Your task to perform on an android device: toggle priority inbox in the gmail app Image 0: 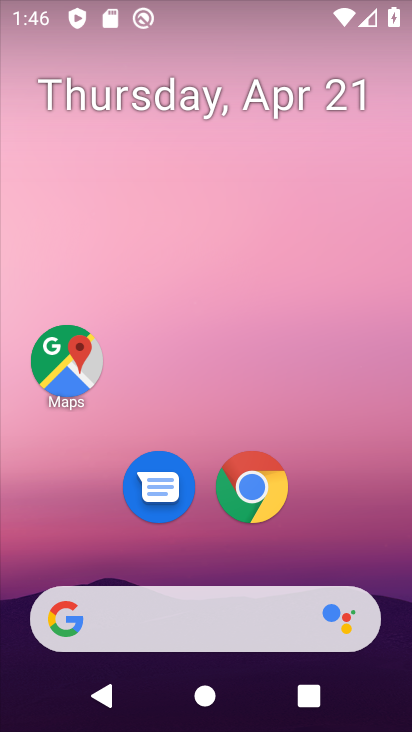
Step 0: click (267, 118)
Your task to perform on an android device: toggle priority inbox in the gmail app Image 1: 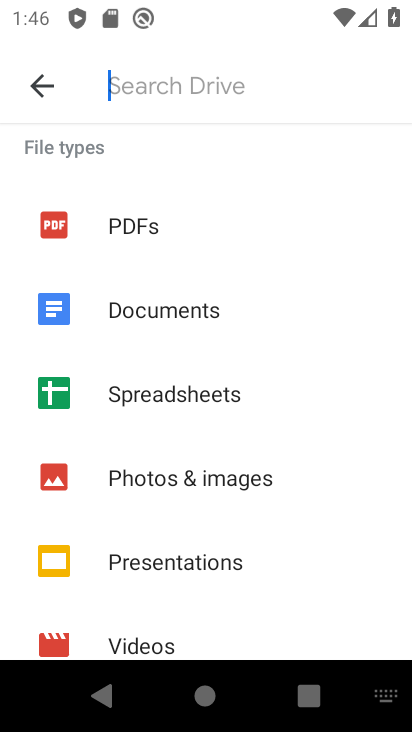
Step 1: drag from (214, 579) to (274, 226)
Your task to perform on an android device: toggle priority inbox in the gmail app Image 2: 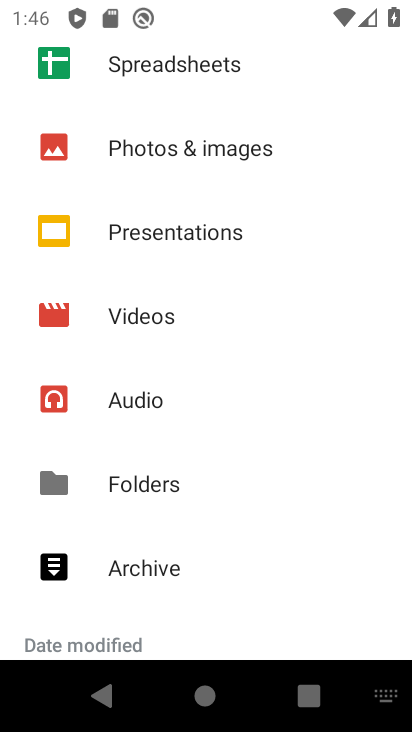
Step 2: drag from (267, 409) to (267, 198)
Your task to perform on an android device: toggle priority inbox in the gmail app Image 3: 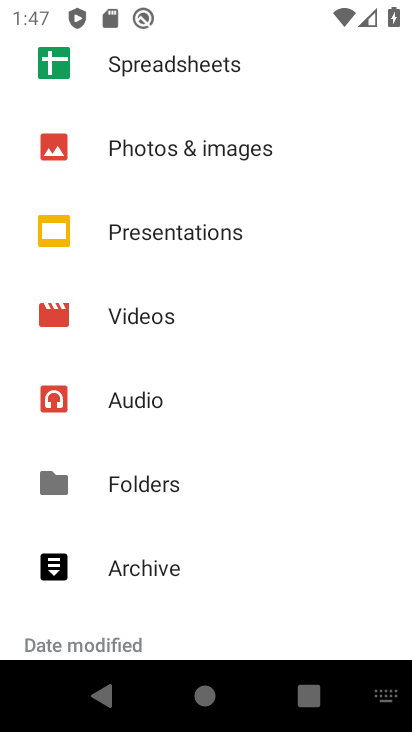
Step 3: drag from (188, 591) to (214, 256)
Your task to perform on an android device: toggle priority inbox in the gmail app Image 4: 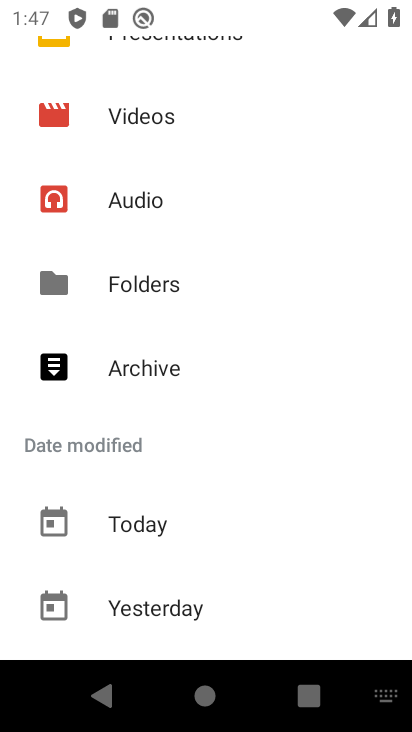
Step 4: drag from (199, 543) to (299, 124)
Your task to perform on an android device: toggle priority inbox in the gmail app Image 5: 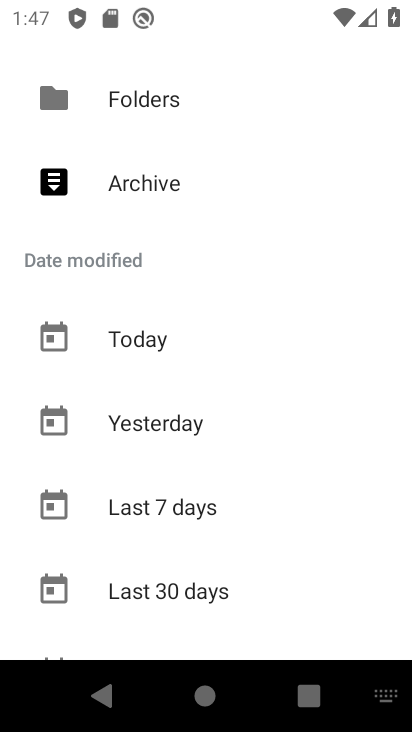
Step 5: drag from (208, 526) to (332, 23)
Your task to perform on an android device: toggle priority inbox in the gmail app Image 6: 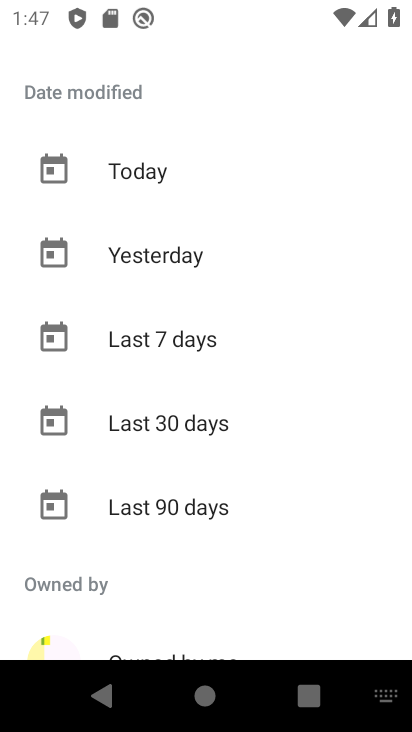
Step 6: drag from (216, 129) to (211, 652)
Your task to perform on an android device: toggle priority inbox in the gmail app Image 7: 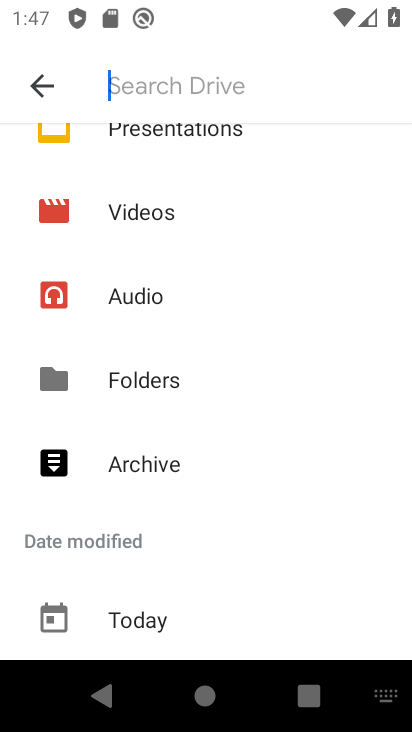
Step 7: press home button
Your task to perform on an android device: toggle priority inbox in the gmail app Image 8: 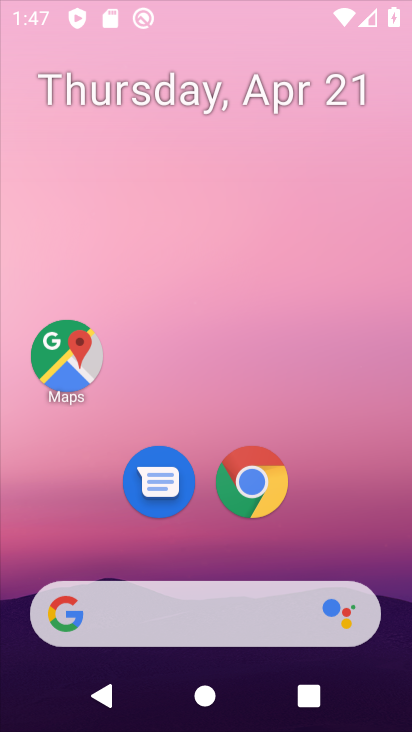
Step 8: drag from (233, 535) to (204, 3)
Your task to perform on an android device: toggle priority inbox in the gmail app Image 9: 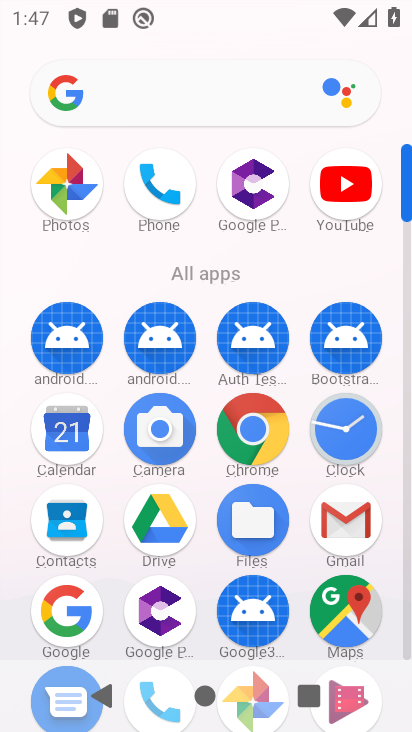
Step 9: click (348, 493)
Your task to perform on an android device: toggle priority inbox in the gmail app Image 10: 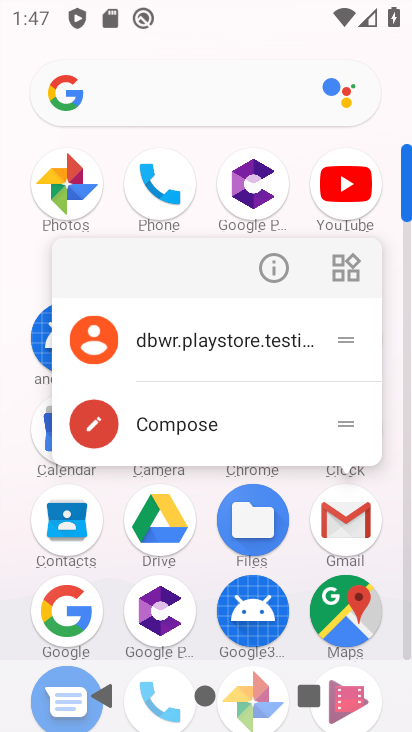
Step 10: click (265, 266)
Your task to perform on an android device: toggle priority inbox in the gmail app Image 11: 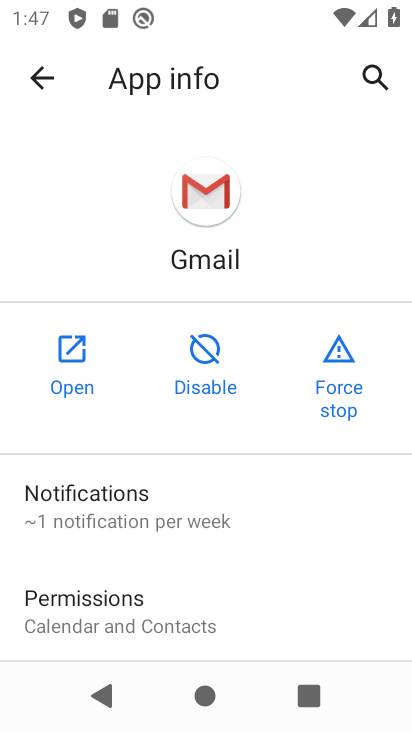
Step 11: click (71, 344)
Your task to perform on an android device: toggle priority inbox in the gmail app Image 12: 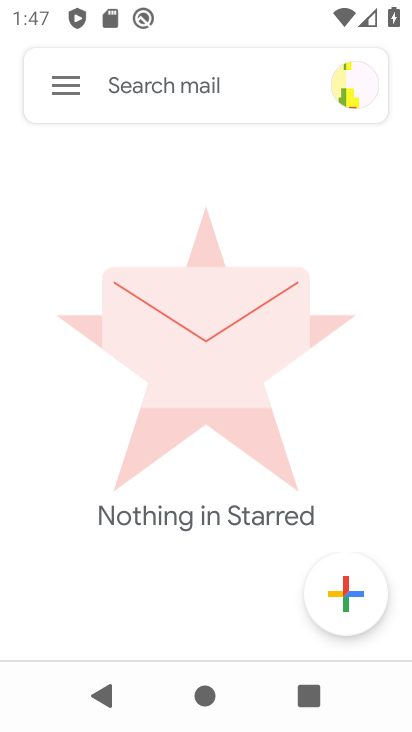
Step 12: click (50, 80)
Your task to perform on an android device: toggle priority inbox in the gmail app Image 13: 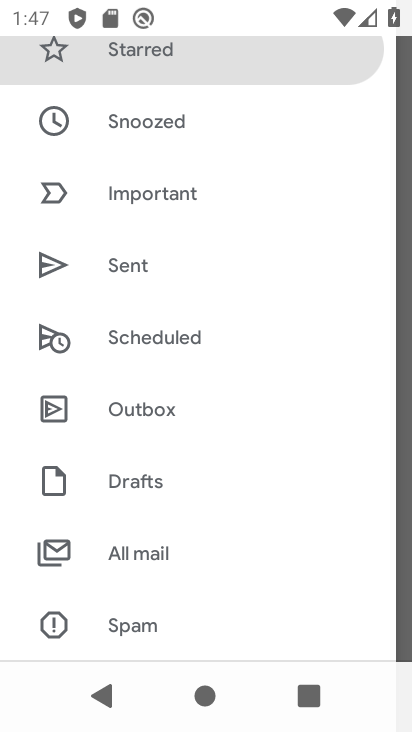
Step 13: drag from (158, 297) to (249, 617)
Your task to perform on an android device: toggle priority inbox in the gmail app Image 14: 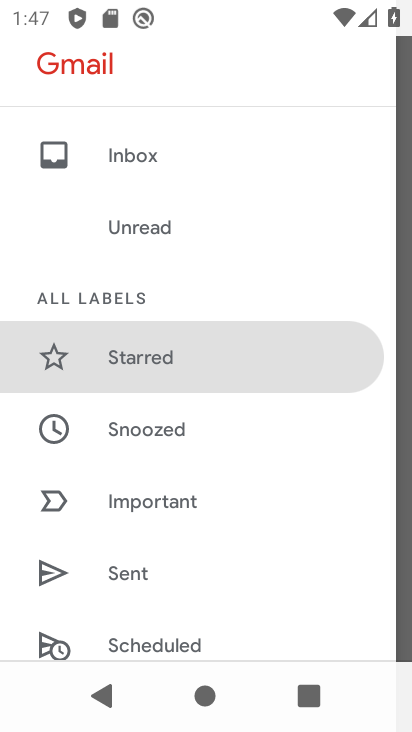
Step 14: drag from (205, 527) to (290, 69)
Your task to perform on an android device: toggle priority inbox in the gmail app Image 15: 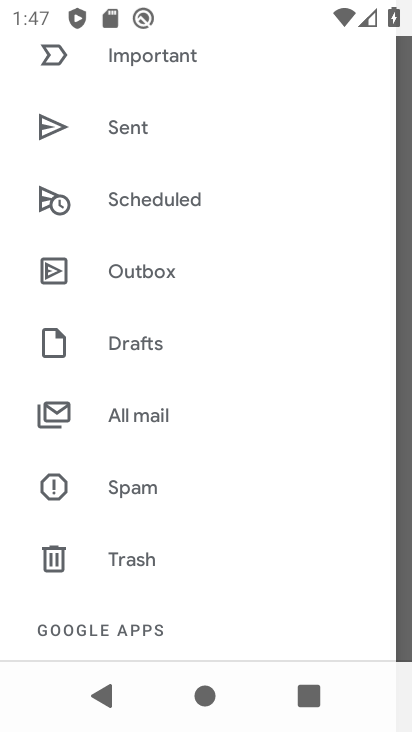
Step 15: drag from (206, 566) to (244, 108)
Your task to perform on an android device: toggle priority inbox in the gmail app Image 16: 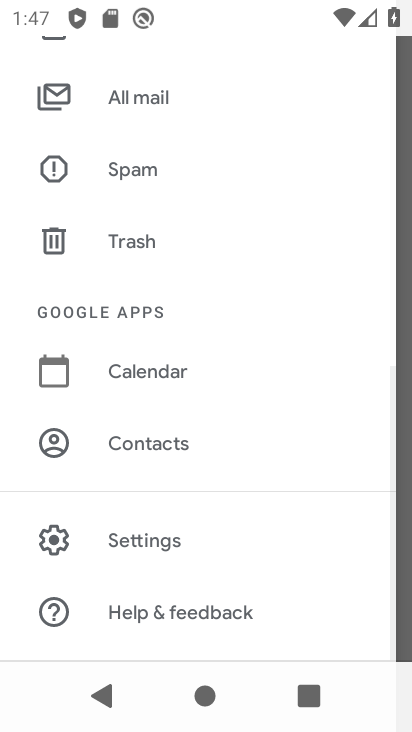
Step 16: click (138, 546)
Your task to perform on an android device: toggle priority inbox in the gmail app Image 17: 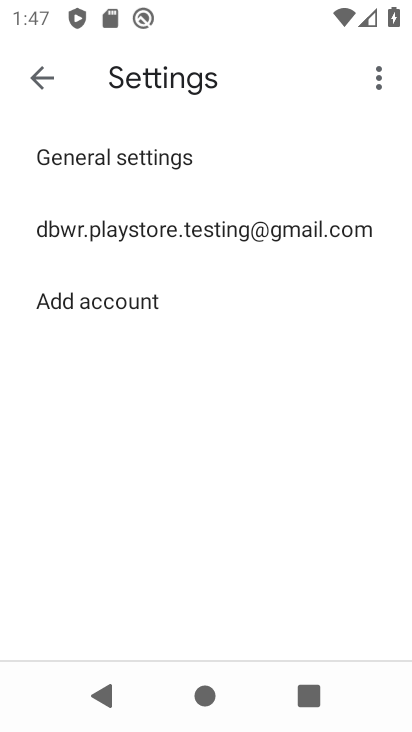
Step 17: click (258, 239)
Your task to perform on an android device: toggle priority inbox in the gmail app Image 18: 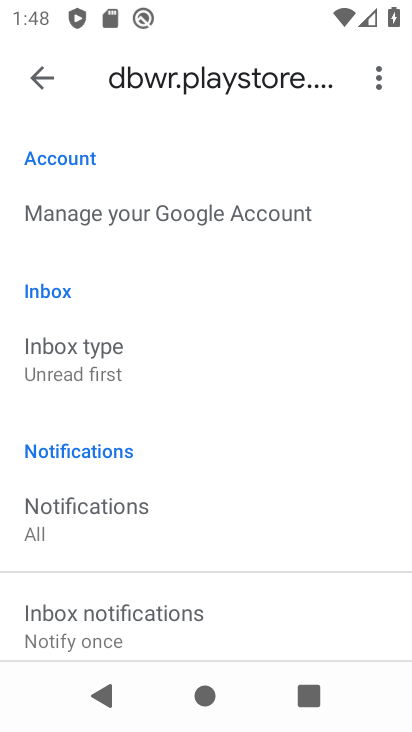
Step 18: click (139, 331)
Your task to perform on an android device: toggle priority inbox in the gmail app Image 19: 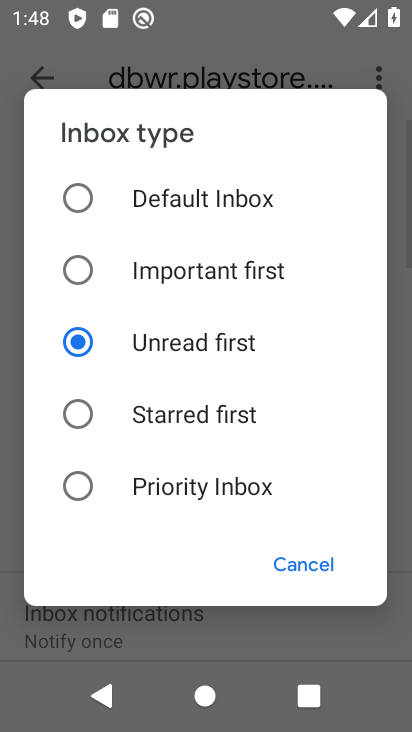
Step 19: click (220, 483)
Your task to perform on an android device: toggle priority inbox in the gmail app Image 20: 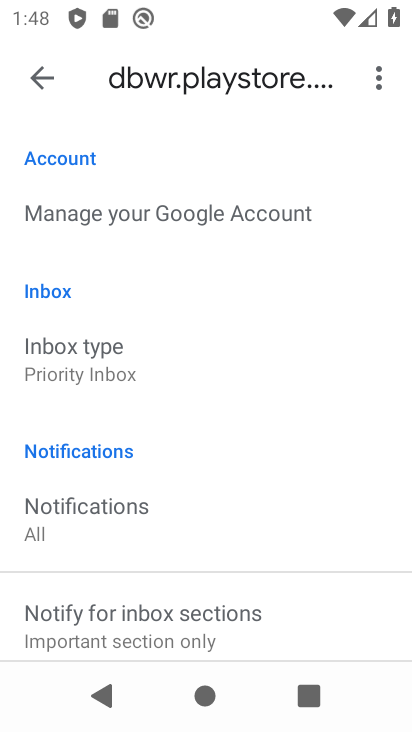
Step 20: task complete